Your task to perform on an android device: Search for Mexican restaurants on Maps Image 0: 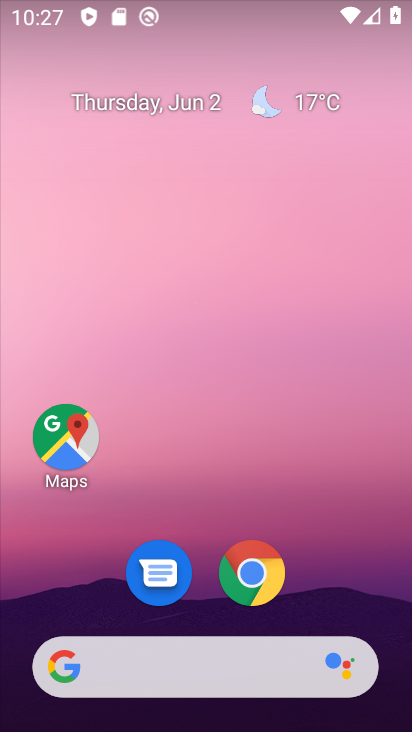
Step 0: task complete